Your task to perform on an android device: Open sound settings Image 0: 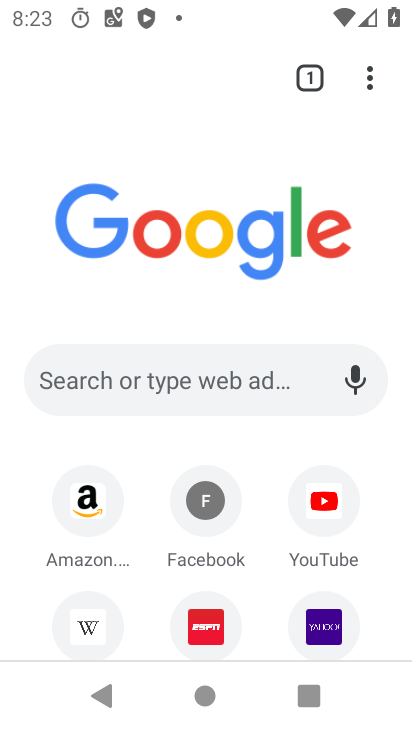
Step 0: press home button
Your task to perform on an android device: Open sound settings Image 1: 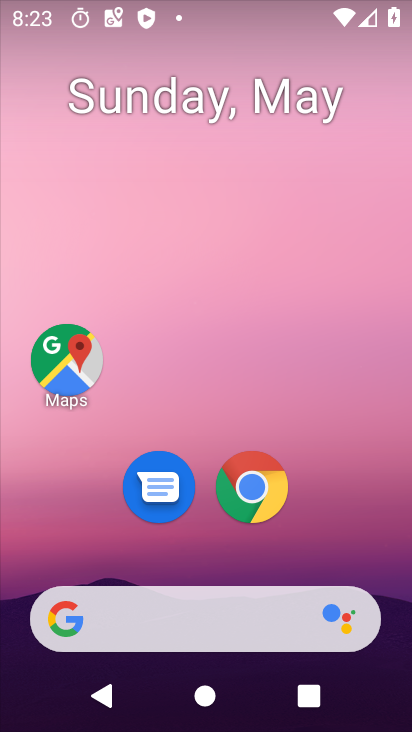
Step 1: drag from (24, 592) to (254, 165)
Your task to perform on an android device: Open sound settings Image 2: 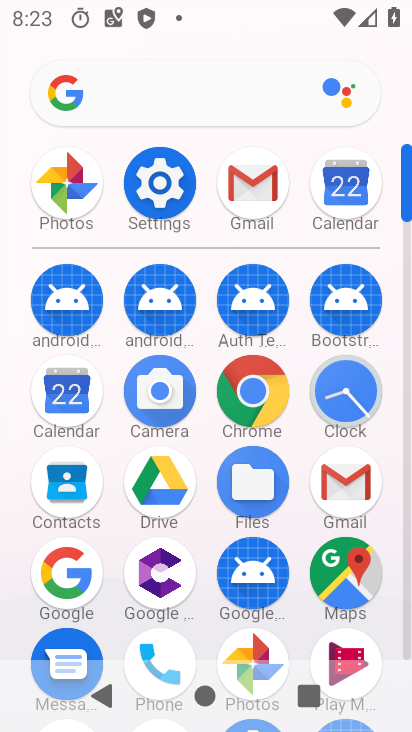
Step 2: click (162, 170)
Your task to perform on an android device: Open sound settings Image 3: 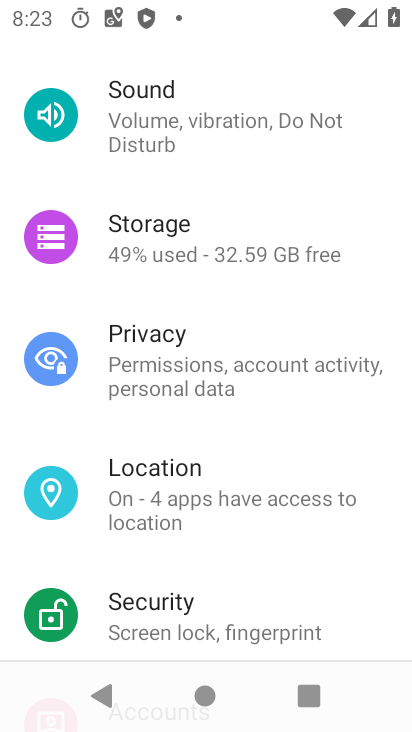
Step 3: click (206, 114)
Your task to perform on an android device: Open sound settings Image 4: 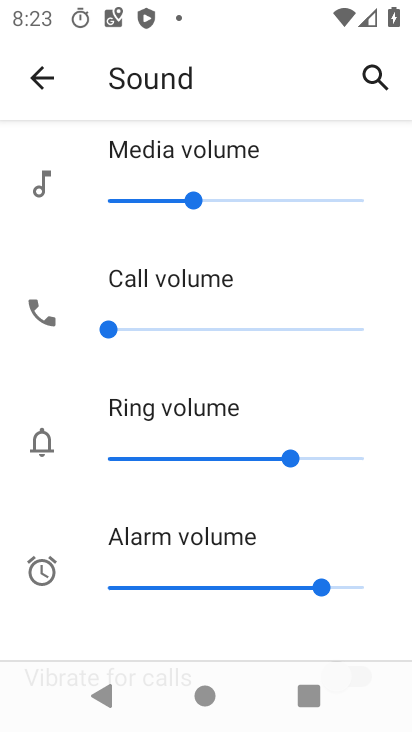
Step 4: task complete